Your task to perform on an android device: View the shopping cart on walmart. Add logitech g933 to the cart on walmart Image 0: 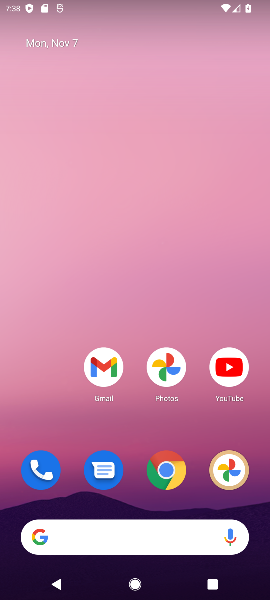
Step 0: click (171, 479)
Your task to perform on an android device: View the shopping cart on walmart. Add logitech g933 to the cart on walmart Image 1: 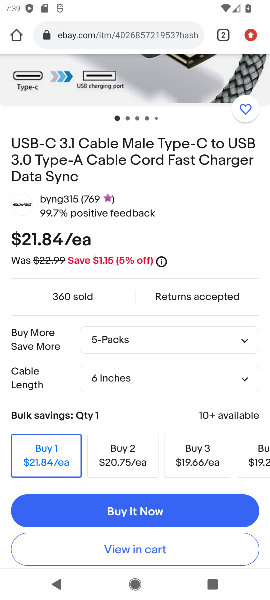
Step 1: click (120, 30)
Your task to perform on an android device: View the shopping cart on walmart. Add logitech g933 to the cart on walmart Image 2: 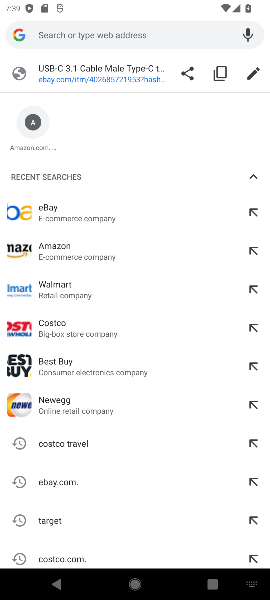
Step 2: type "walmart"
Your task to perform on an android device: View the shopping cart on walmart. Add logitech g933 to the cart on walmart Image 3: 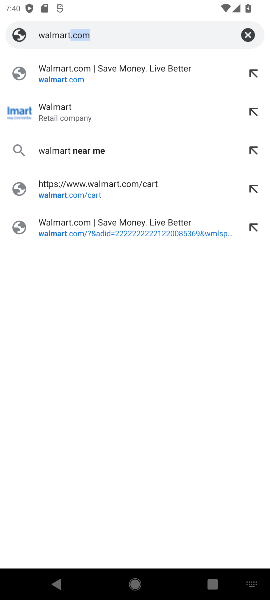
Step 3: click (90, 108)
Your task to perform on an android device: View the shopping cart on walmart. Add logitech g933 to the cart on walmart Image 4: 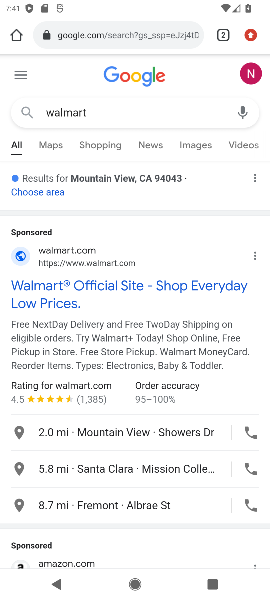
Step 4: click (64, 287)
Your task to perform on an android device: View the shopping cart on walmart. Add logitech g933 to the cart on walmart Image 5: 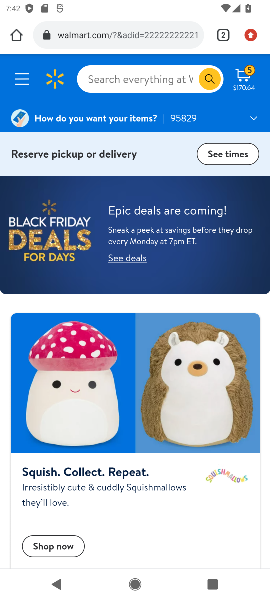
Step 5: click (251, 72)
Your task to perform on an android device: View the shopping cart on walmart. Add logitech g933 to the cart on walmart Image 6: 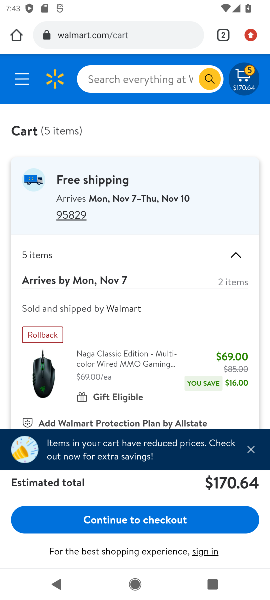
Step 6: click (238, 84)
Your task to perform on an android device: View the shopping cart on walmart. Add logitech g933 to the cart on walmart Image 7: 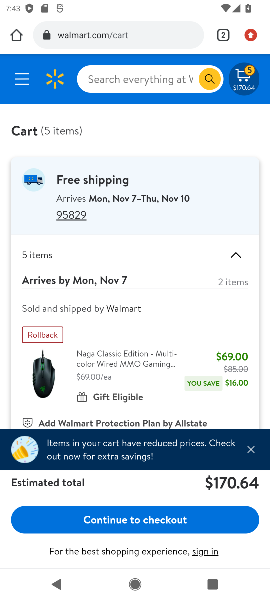
Step 7: click (97, 508)
Your task to perform on an android device: View the shopping cart on walmart. Add logitech g933 to the cart on walmart Image 8: 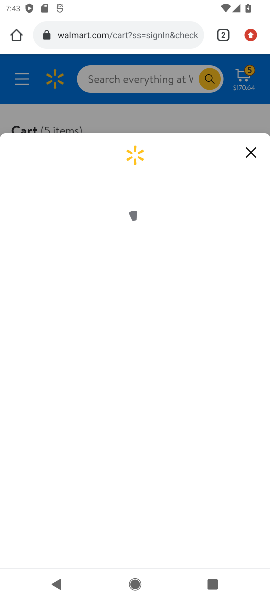
Step 8: task complete